Your task to perform on an android device: Is it going to rain this weekend? Image 0: 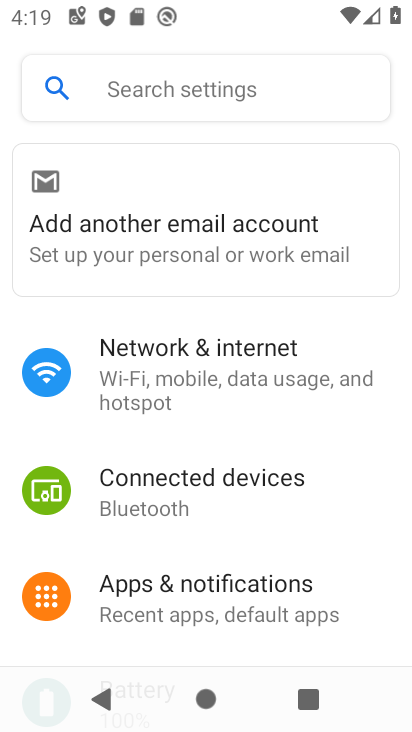
Step 0: press home button
Your task to perform on an android device: Is it going to rain this weekend? Image 1: 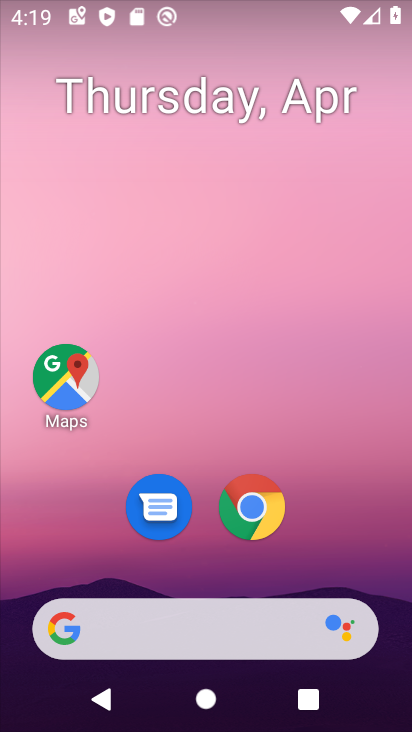
Step 1: drag from (1, 168) to (401, 211)
Your task to perform on an android device: Is it going to rain this weekend? Image 2: 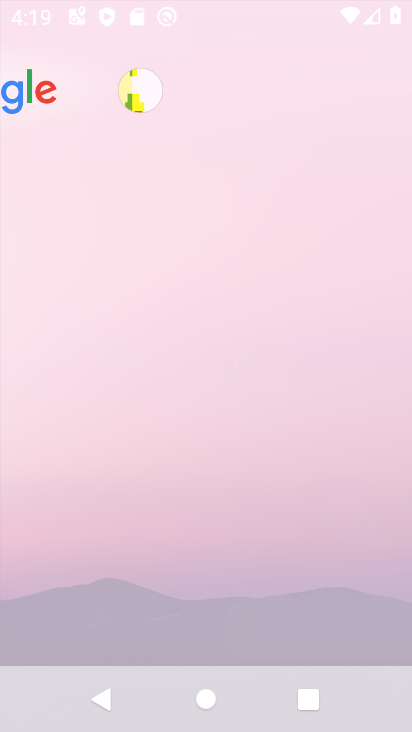
Step 2: drag from (25, 119) to (404, 157)
Your task to perform on an android device: Is it going to rain this weekend? Image 3: 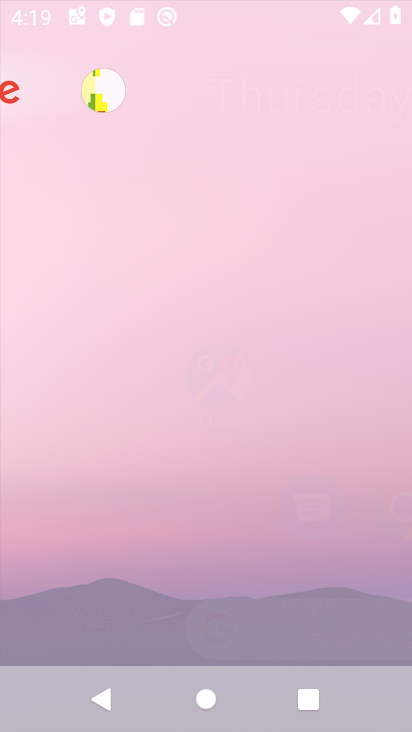
Step 3: drag from (35, 160) to (408, 208)
Your task to perform on an android device: Is it going to rain this weekend? Image 4: 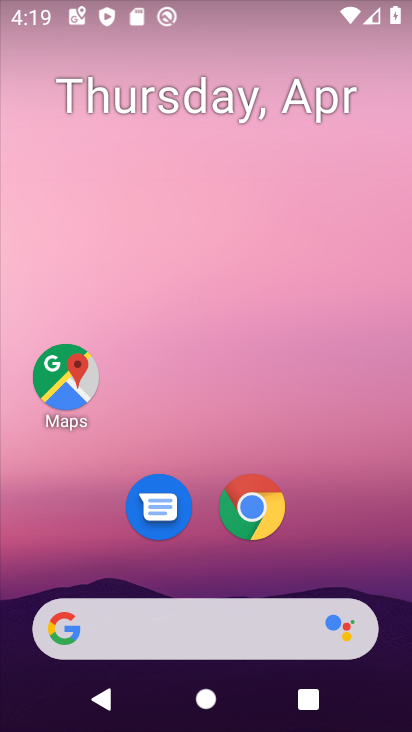
Step 4: drag from (0, 120) to (397, 99)
Your task to perform on an android device: Is it going to rain this weekend? Image 5: 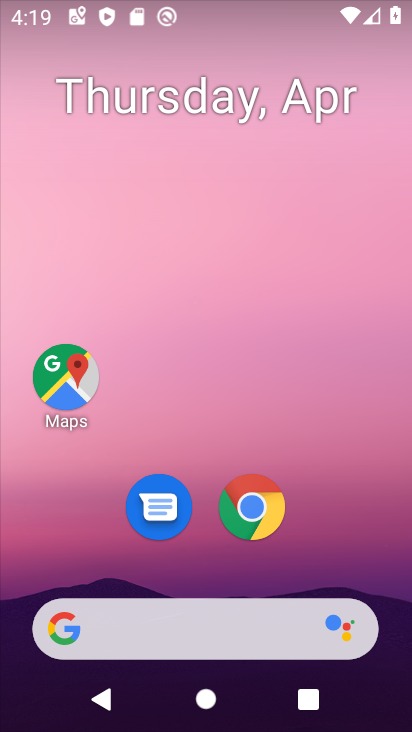
Step 5: drag from (11, 130) to (390, 49)
Your task to perform on an android device: Is it going to rain this weekend? Image 6: 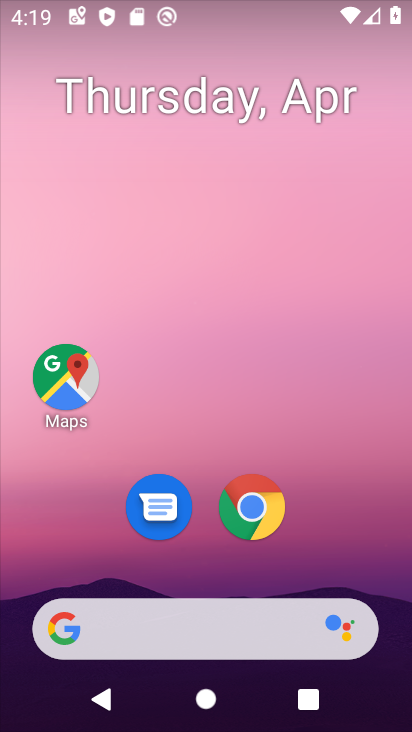
Step 6: drag from (13, 141) to (398, 172)
Your task to perform on an android device: Is it going to rain this weekend? Image 7: 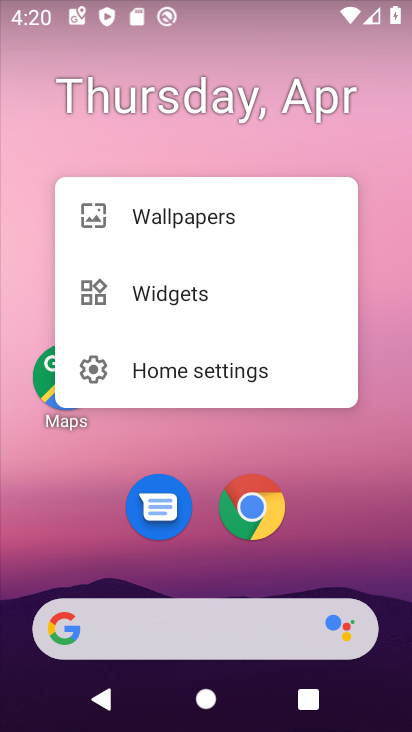
Step 7: click (373, 153)
Your task to perform on an android device: Is it going to rain this weekend? Image 8: 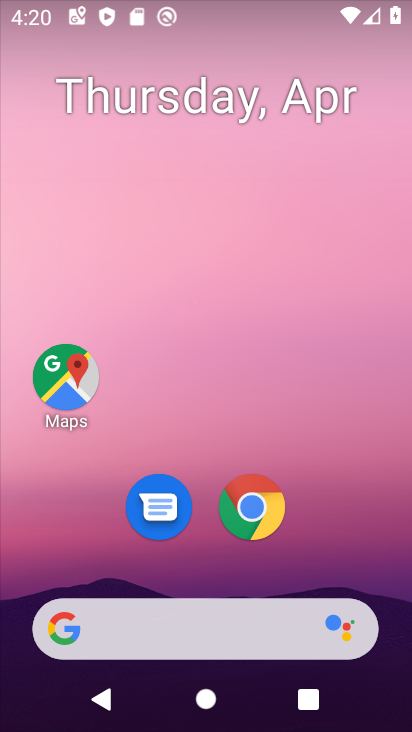
Step 8: drag from (5, 137) to (391, 188)
Your task to perform on an android device: Is it going to rain this weekend? Image 9: 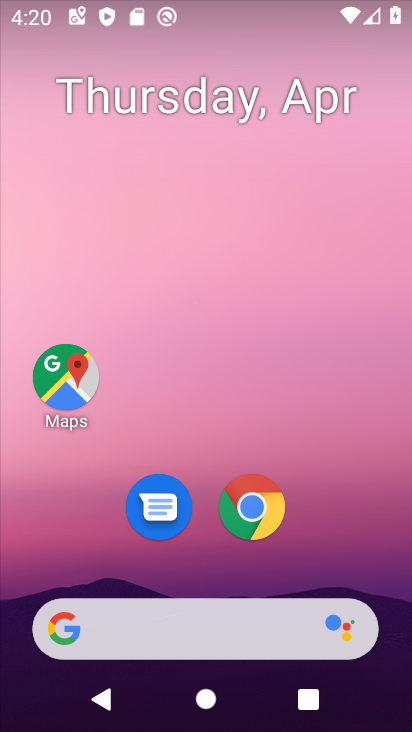
Step 9: drag from (12, 135) to (375, 154)
Your task to perform on an android device: Is it going to rain this weekend? Image 10: 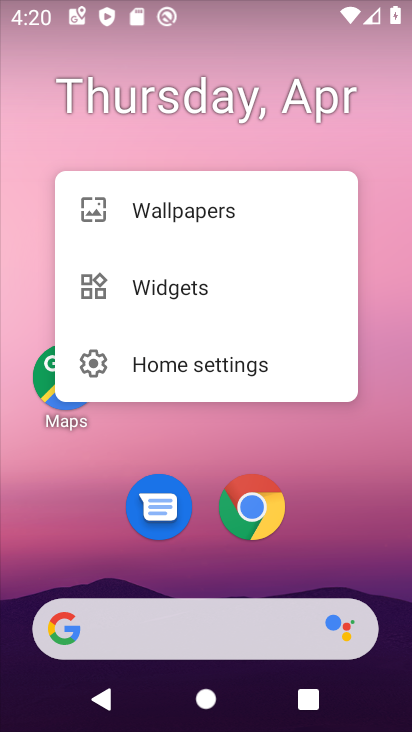
Step 10: drag from (3, 110) to (382, 144)
Your task to perform on an android device: Is it going to rain this weekend? Image 11: 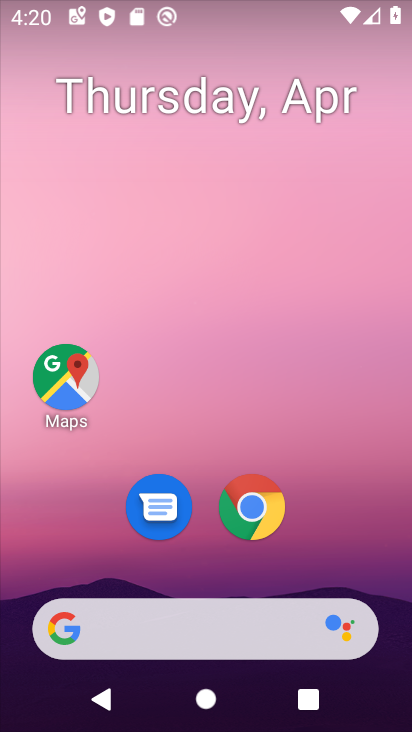
Step 11: drag from (9, 115) to (384, 155)
Your task to perform on an android device: Is it going to rain this weekend? Image 12: 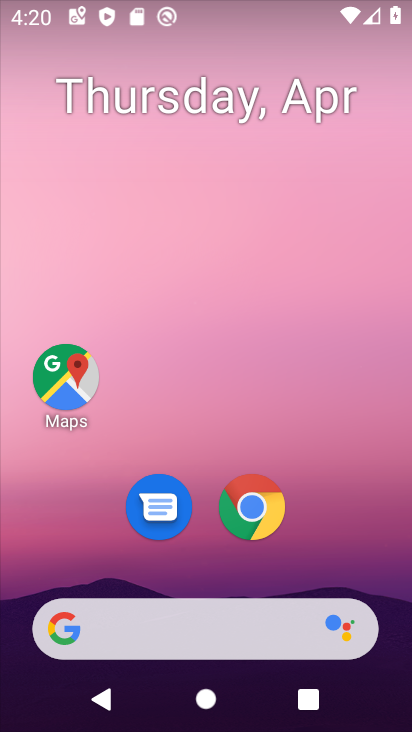
Step 12: drag from (24, 144) to (398, 29)
Your task to perform on an android device: Is it going to rain this weekend? Image 13: 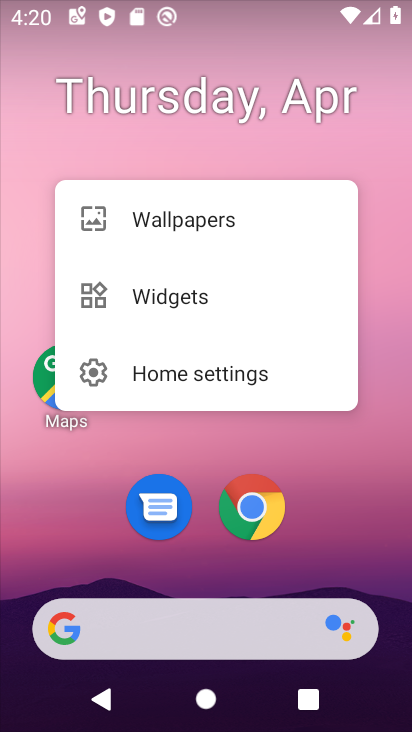
Step 13: click (229, 120)
Your task to perform on an android device: Is it going to rain this weekend? Image 14: 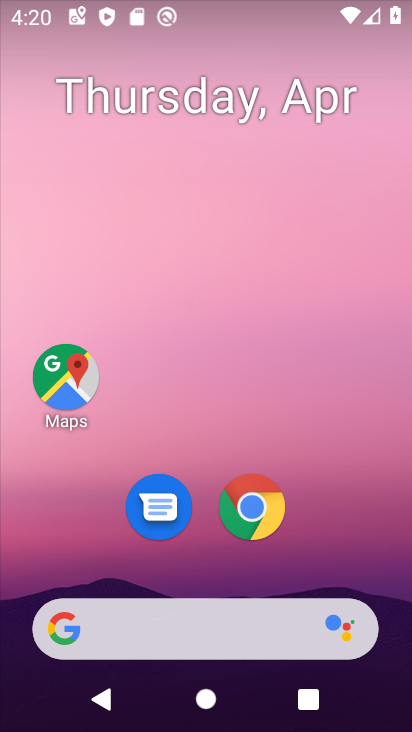
Step 14: drag from (6, 134) to (400, 132)
Your task to perform on an android device: Is it going to rain this weekend? Image 15: 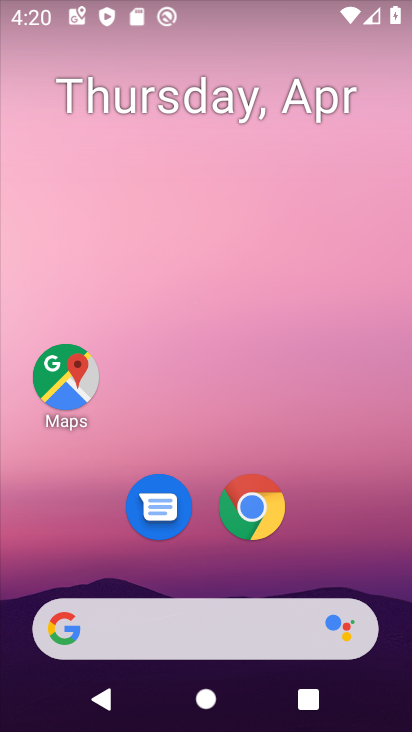
Step 15: drag from (132, 137) to (364, 184)
Your task to perform on an android device: Is it going to rain this weekend? Image 16: 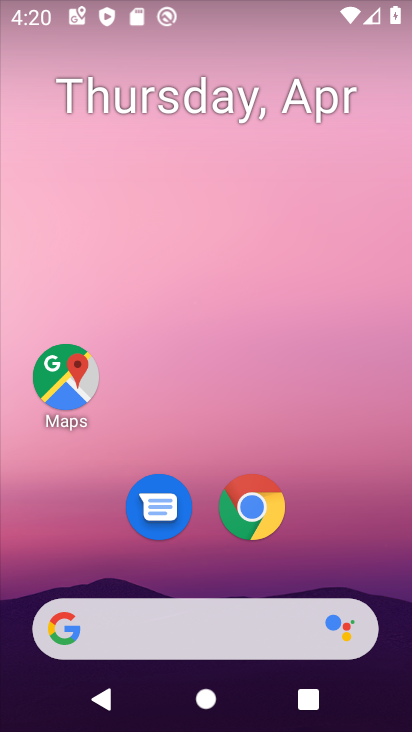
Step 16: drag from (13, 259) to (393, 155)
Your task to perform on an android device: Is it going to rain this weekend? Image 17: 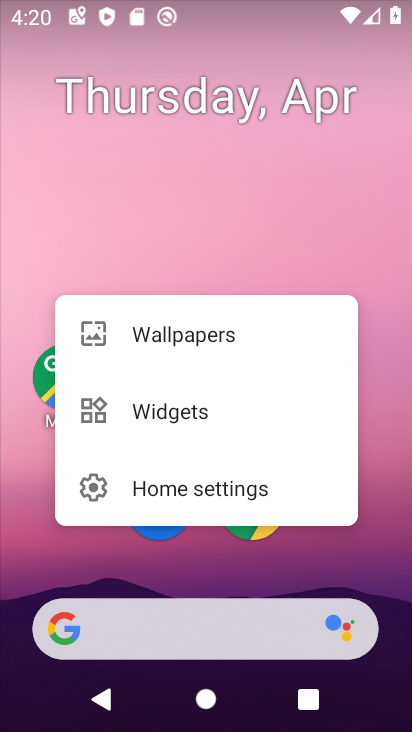
Step 17: drag from (20, 127) to (399, 121)
Your task to perform on an android device: Is it going to rain this weekend? Image 18: 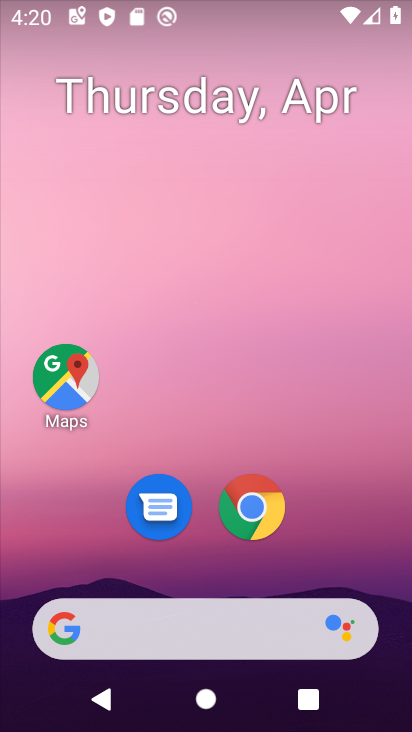
Step 18: drag from (14, 114) to (401, 125)
Your task to perform on an android device: Is it going to rain this weekend? Image 19: 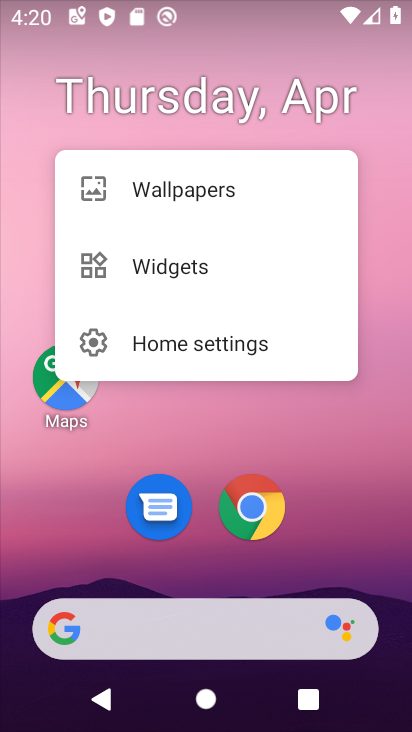
Step 19: click (218, 83)
Your task to perform on an android device: Is it going to rain this weekend? Image 20: 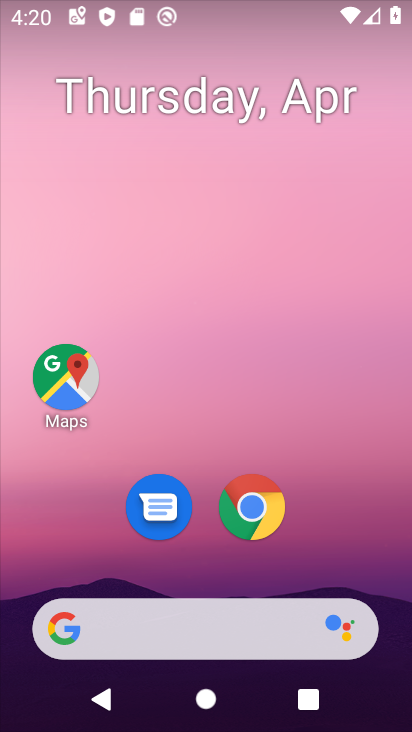
Step 20: drag from (13, 99) to (386, 82)
Your task to perform on an android device: Is it going to rain this weekend? Image 21: 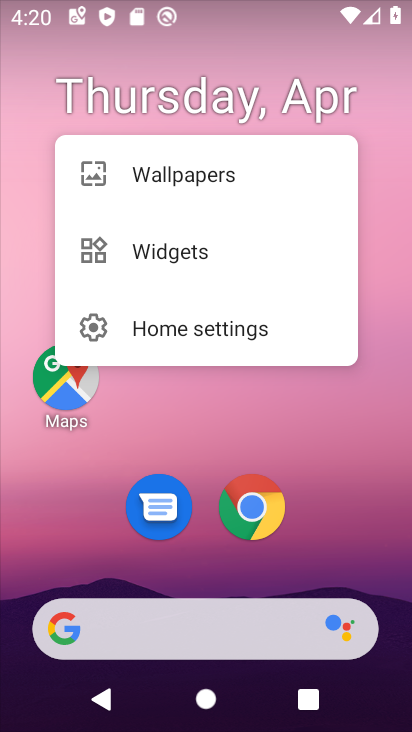
Step 21: click (340, 439)
Your task to perform on an android device: Is it going to rain this weekend? Image 22: 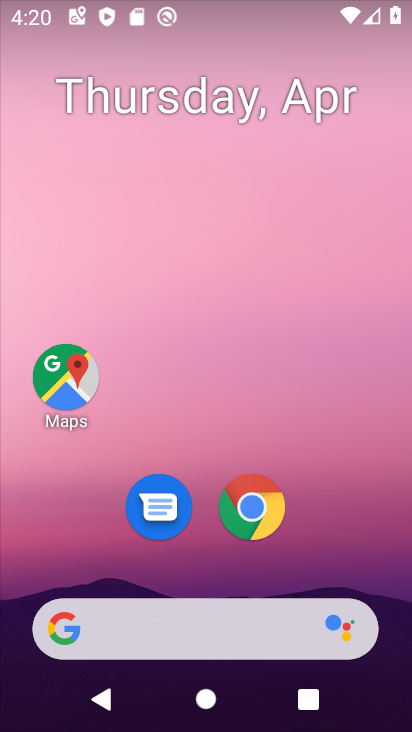
Step 22: drag from (9, 244) to (385, 250)
Your task to perform on an android device: Is it going to rain this weekend? Image 23: 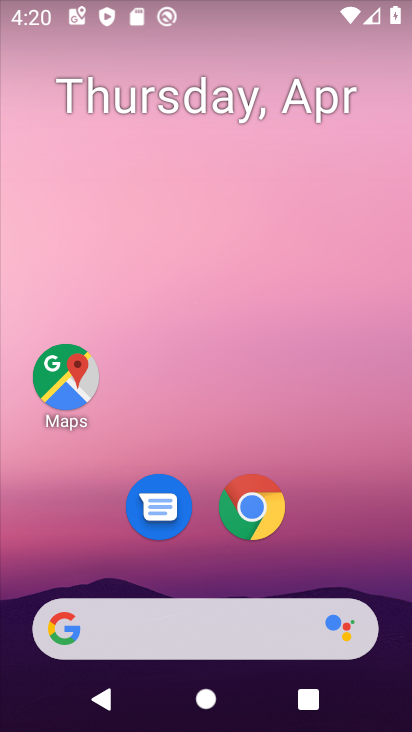
Step 23: drag from (14, 153) to (380, 153)
Your task to perform on an android device: Is it going to rain this weekend? Image 24: 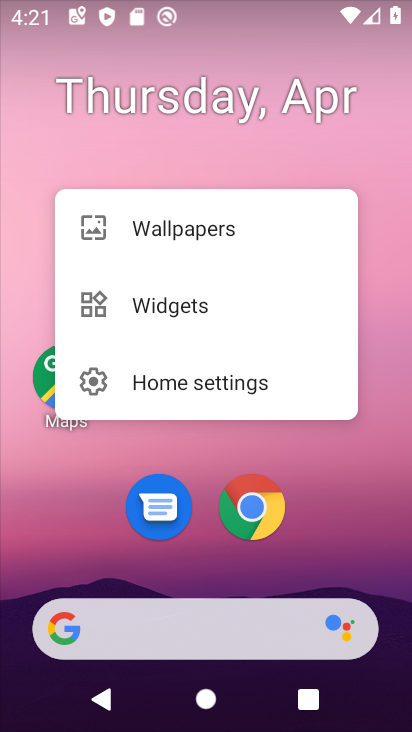
Step 24: click (391, 536)
Your task to perform on an android device: Is it going to rain this weekend? Image 25: 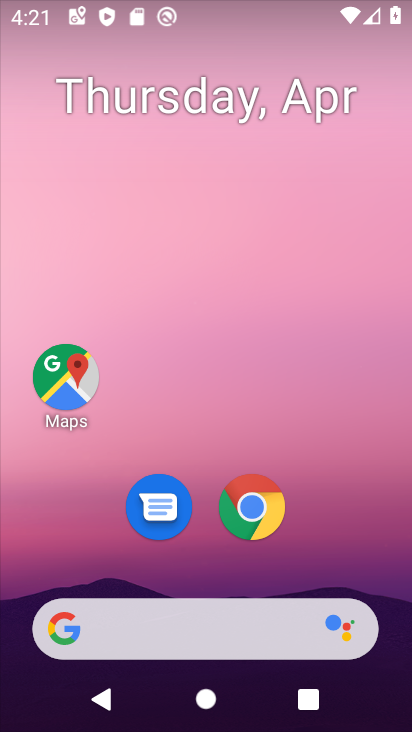
Step 25: click (365, 494)
Your task to perform on an android device: Is it going to rain this weekend? Image 26: 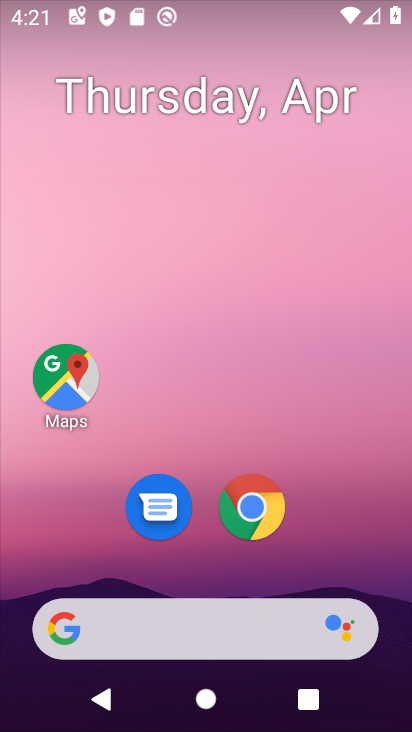
Step 26: drag from (17, 81) to (411, 131)
Your task to perform on an android device: Is it going to rain this weekend? Image 27: 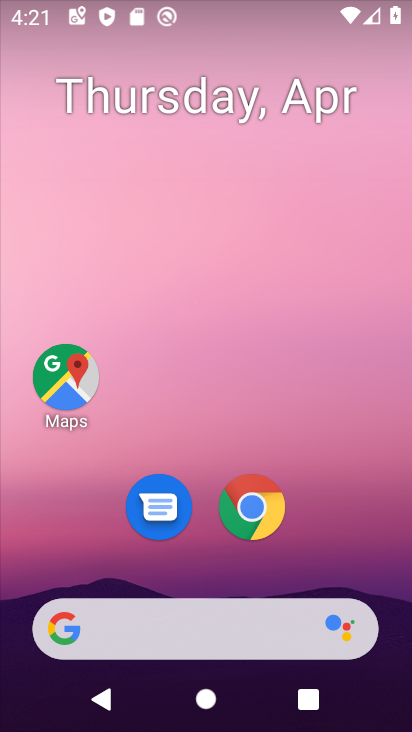
Step 27: drag from (9, 108) to (403, 226)
Your task to perform on an android device: Is it going to rain this weekend? Image 28: 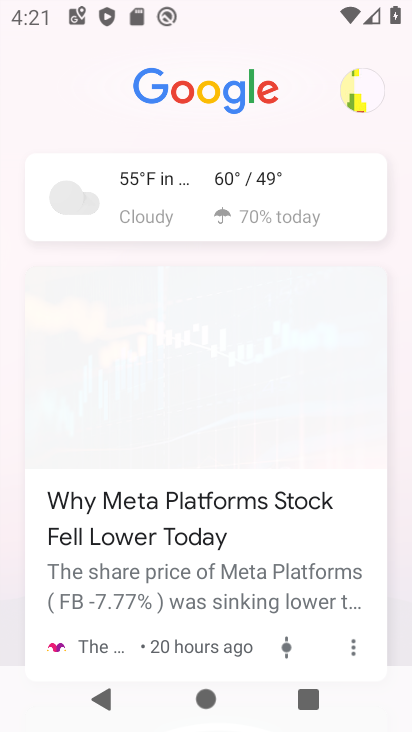
Step 28: click (218, 190)
Your task to perform on an android device: Is it going to rain this weekend? Image 29: 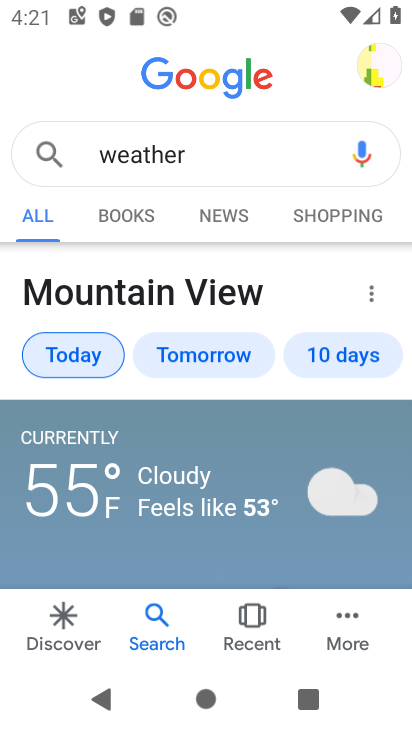
Step 29: task complete